Your task to perform on an android device: open a new tab in the chrome app Image 0: 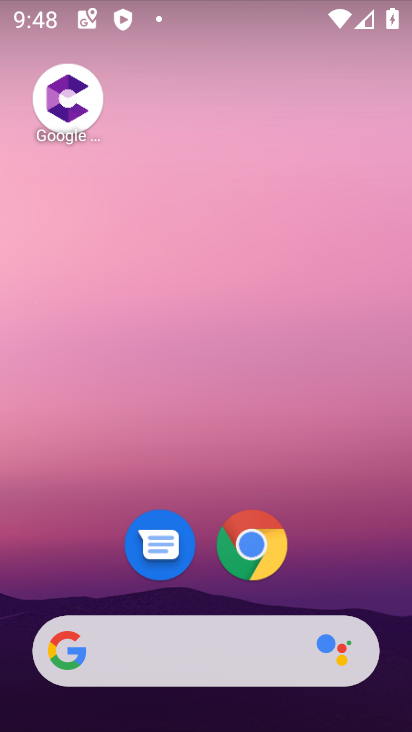
Step 0: click (252, 547)
Your task to perform on an android device: open a new tab in the chrome app Image 1: 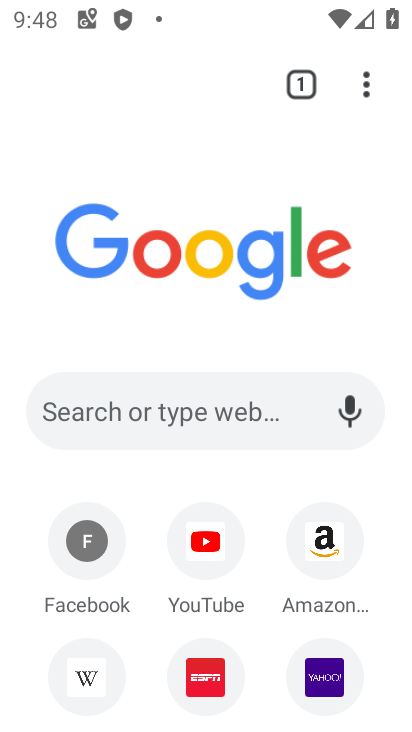
Step 1: click (363, 79)
Your task to perform on an android device: open a new tab in the chrome app Image 2: 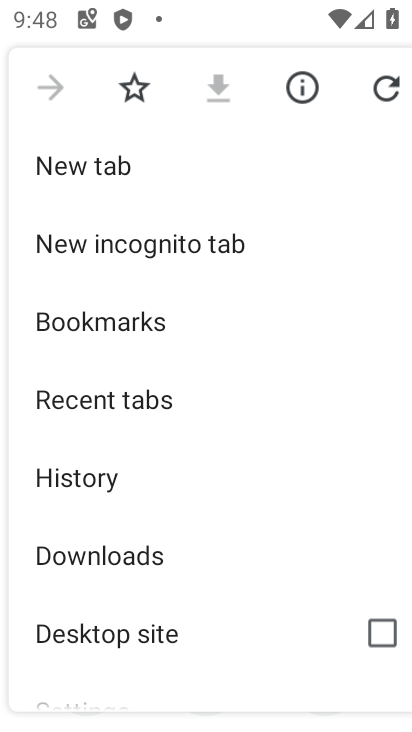
Step 2: click (107, 168)
Your task to perform on an android device: open a new tab in the chrome app Image 3: 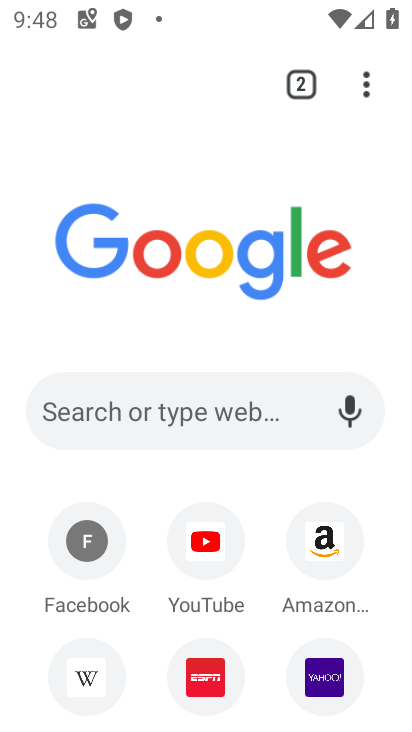
Step 3: task complete